Your task to perform on an android device: Open the phone app and click the voicemail tab. Image 0: 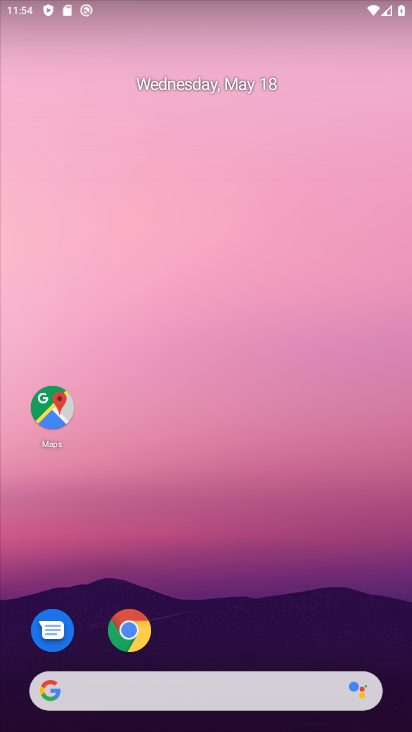
Step 0: drag from (185, 637) to (282, 21)
Your task to perform on an android device: Open the phone app and click the voicemail tab. Image 1: 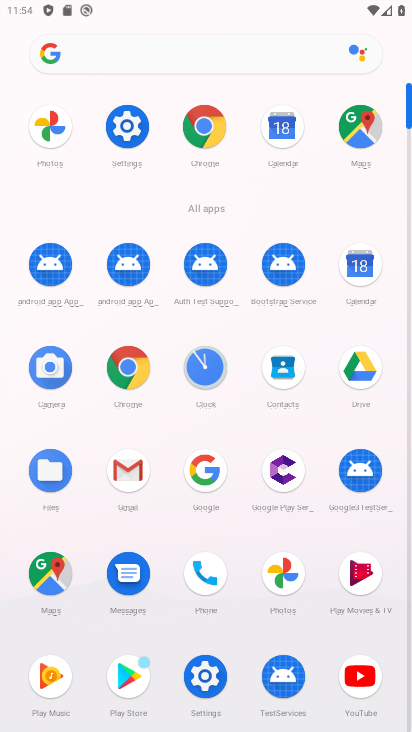
Step 1: click (196, 586)
Your task to perform on an android device: Open the phone app and click the voicemail tab. Image 2: 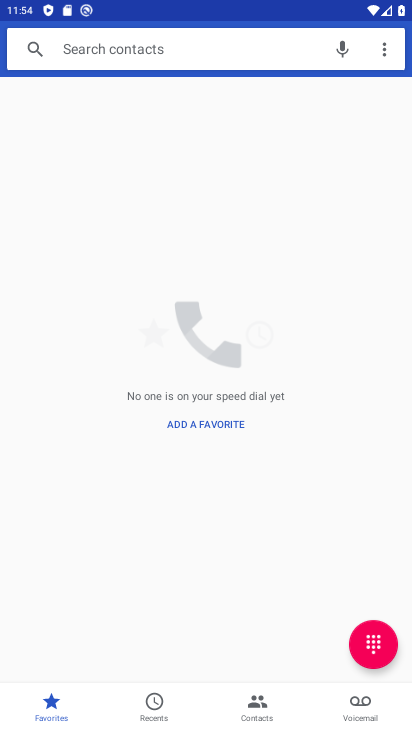
Step 2: click (353, 713)
Your task to perform on an android device: Open the phone app and click the voicemail tab. Image 3: 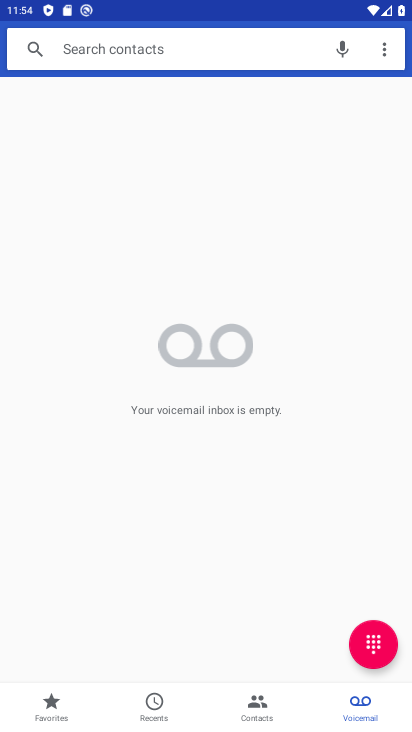
Step 3: task complete